Your task to perform on an android device: Google the capital of the United States Image 0: 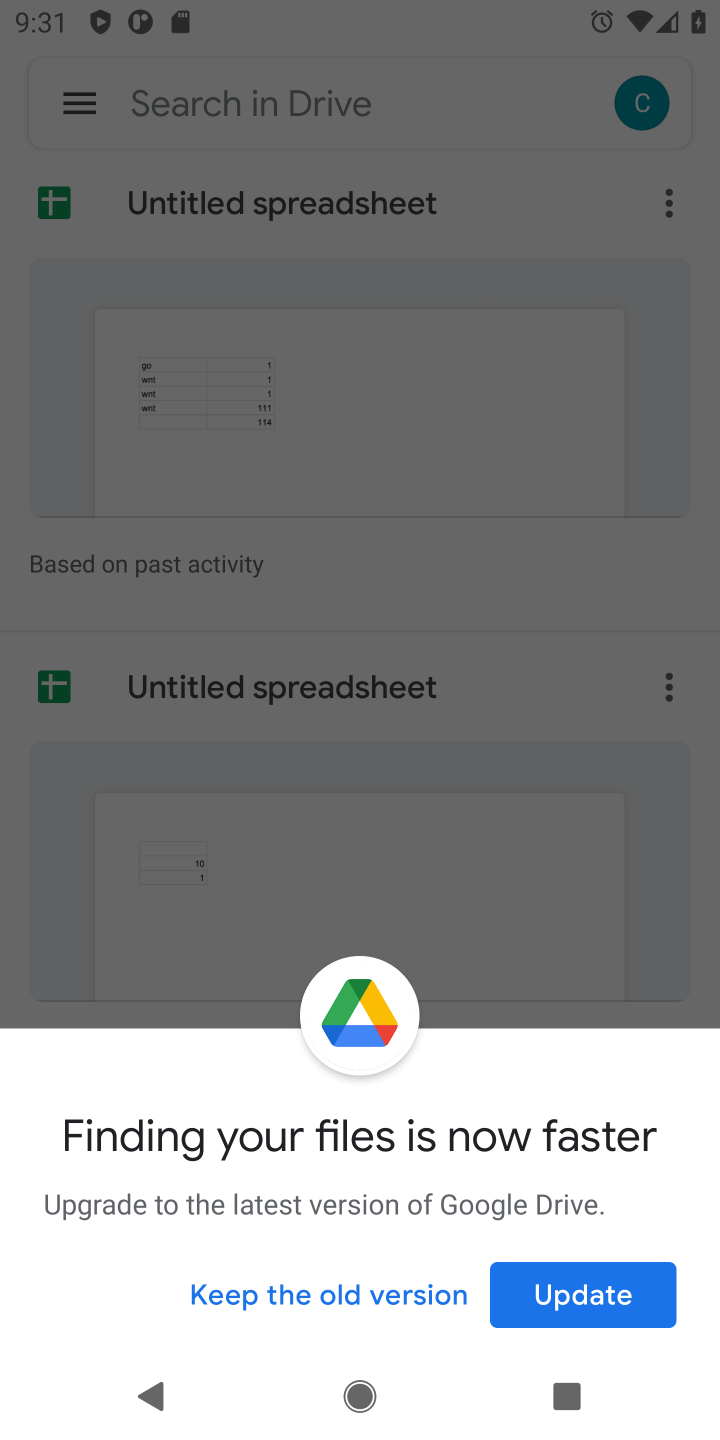
Step 0: press home button
Your task to perform on an android device: Google the capital of the United States Image 1: 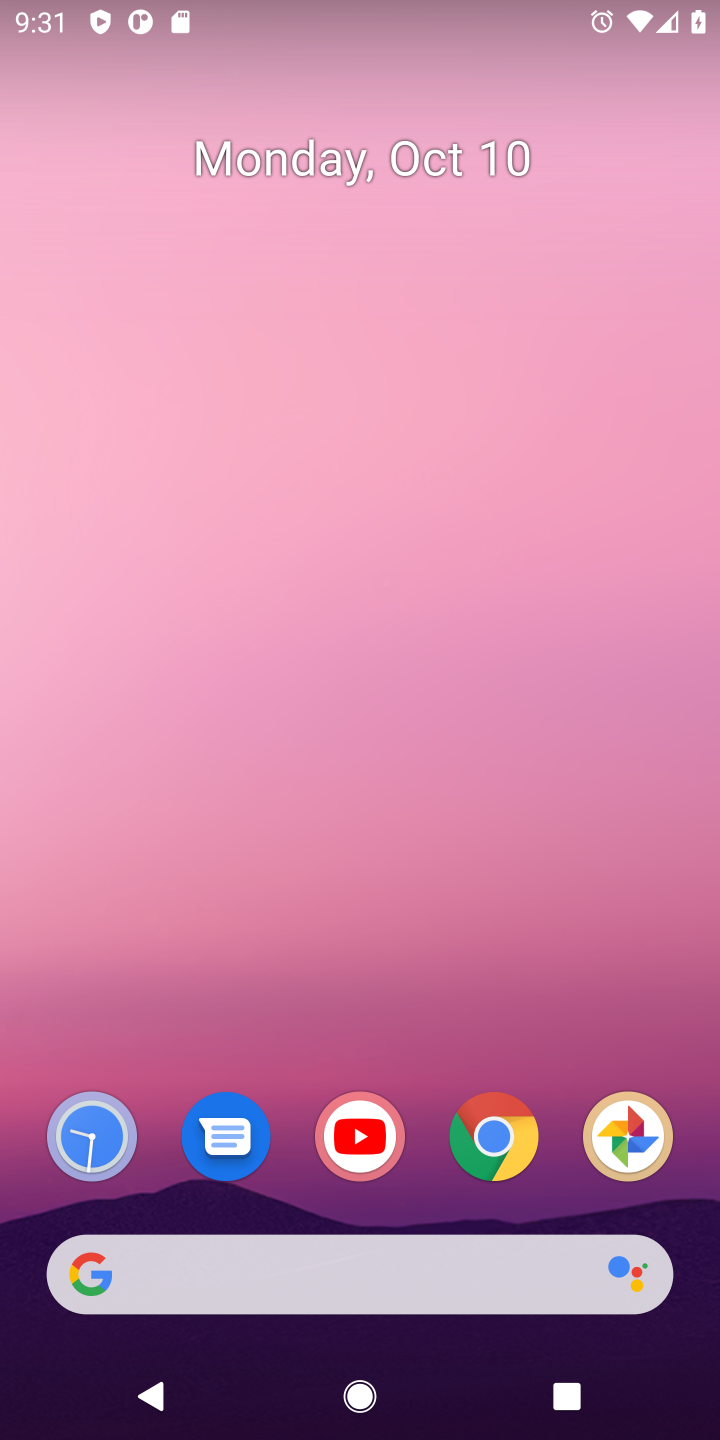
Step 1: click (506, 1124)
Your task to perform on an android device: Google the capital of the United States Image 2: 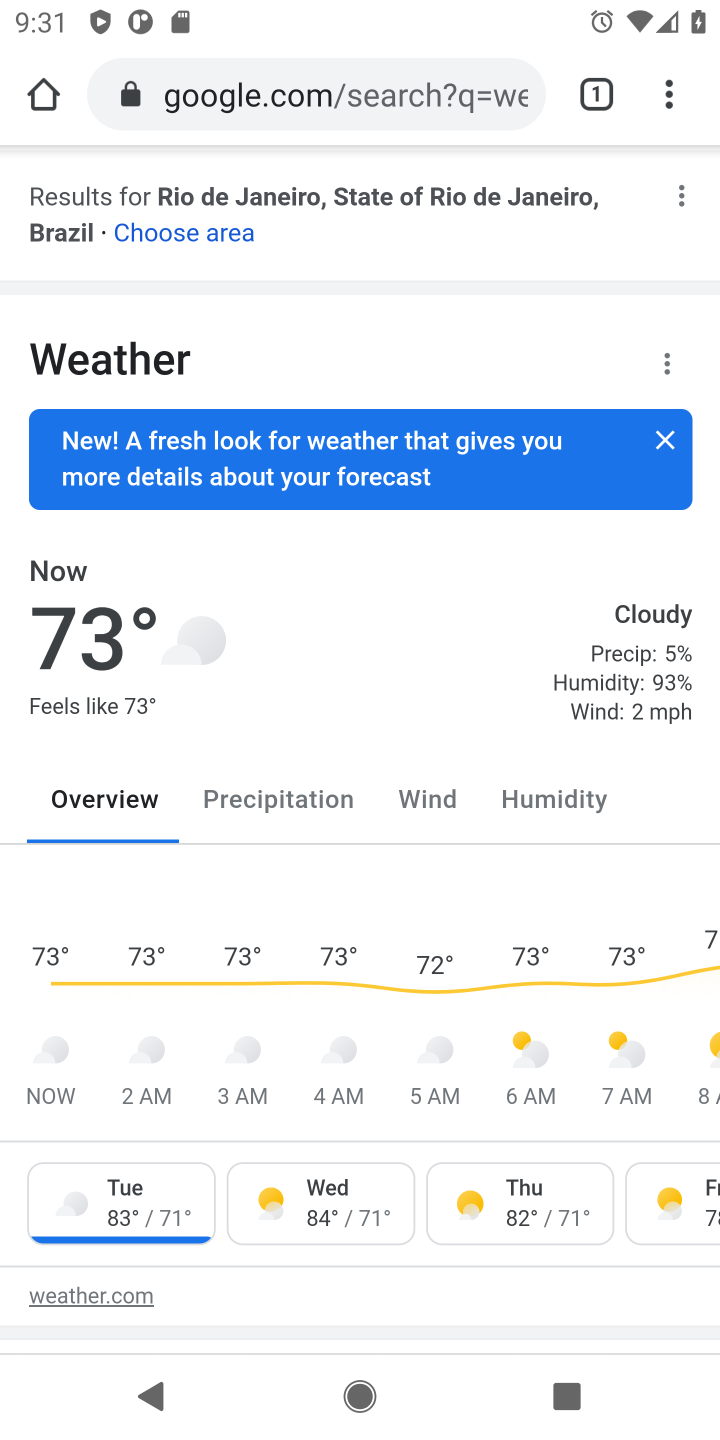
Step 2: click (218, 103)
Your task to perform on an android device: Google the capital of the United States Image 3: 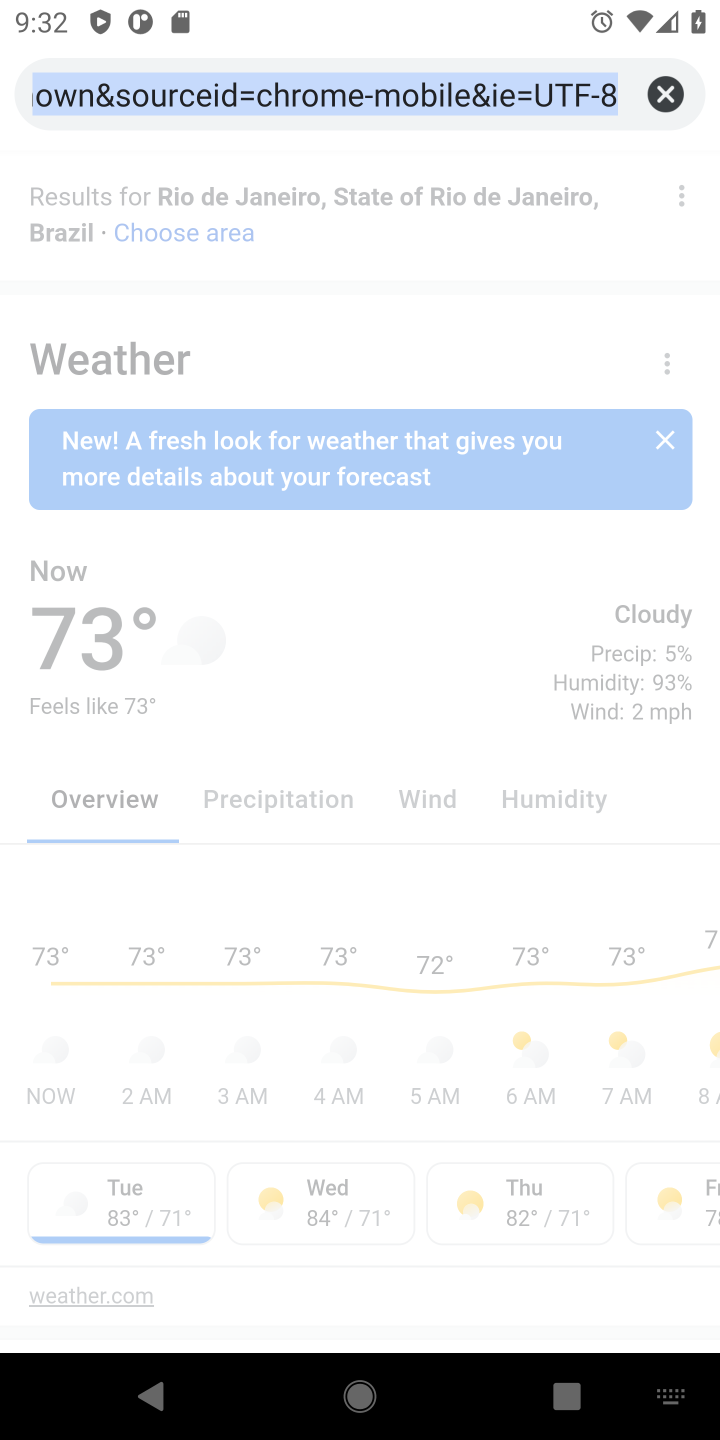
Step 3: type "capital of the United States"
Your task to perform on an android device: Google the capital of the United States Image 4: 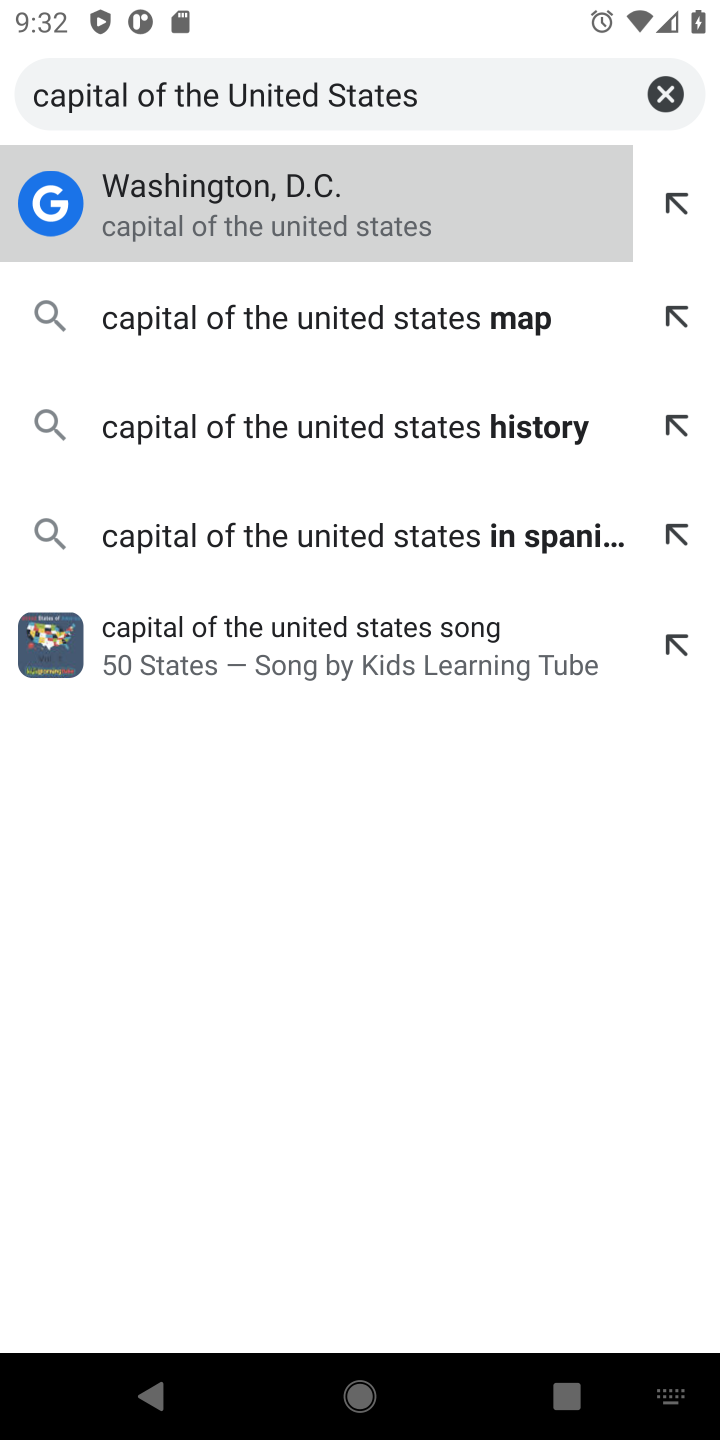
Step 4: click (334, 188)
Your task to perform on an android device: Google the capital of the United States Image 5: 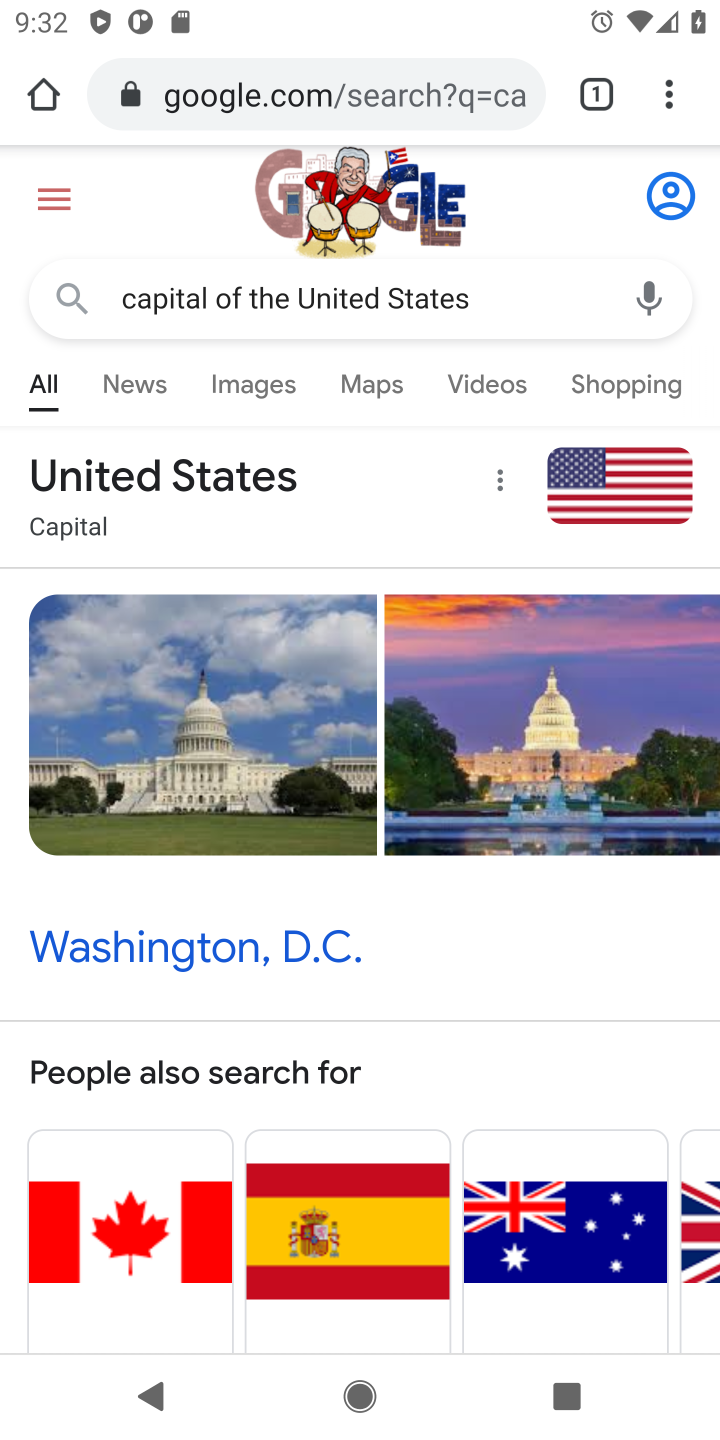
Step 5: task complete